Your task to perform on an android device: visit the assistant section in the google photos Image 0: 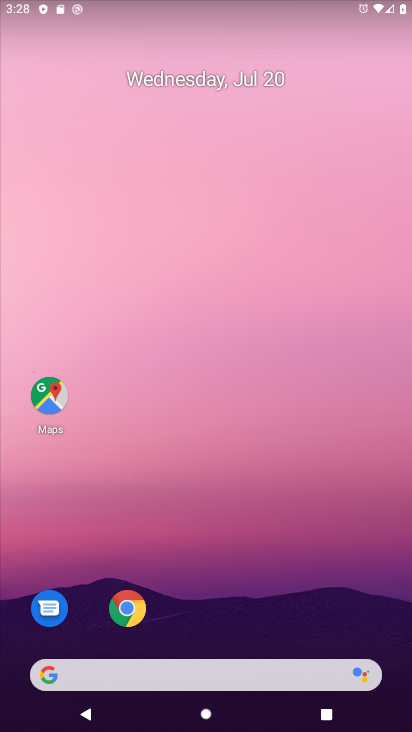
Step 0: click (259, 27)
Your task to perform on an android device: visit the assistant section in the google photos Image 1: 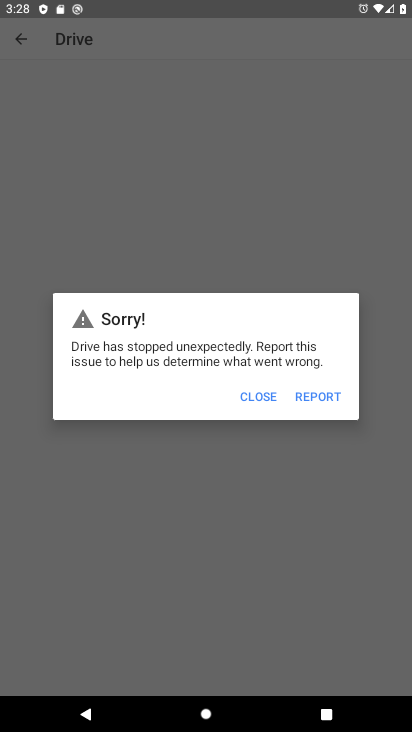
Step 1: press home button
Your task to perform on an android device: visit the assistant section in the google photos Image 2: 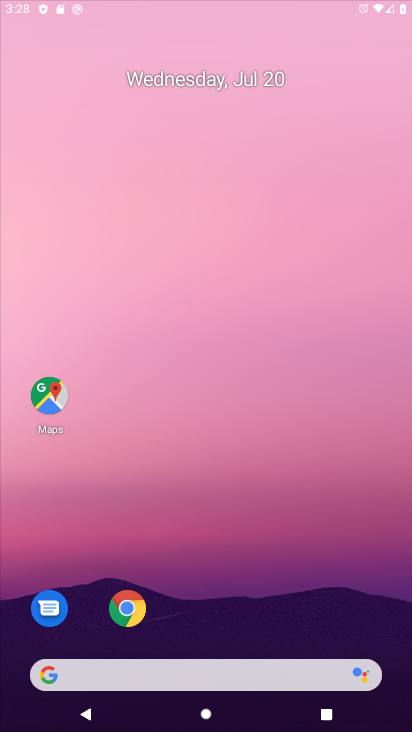
Step 2: drag from (249, 534) to (387, 39)
Your task to perform on an android device: visit the assistant section in the google photos Image 3: 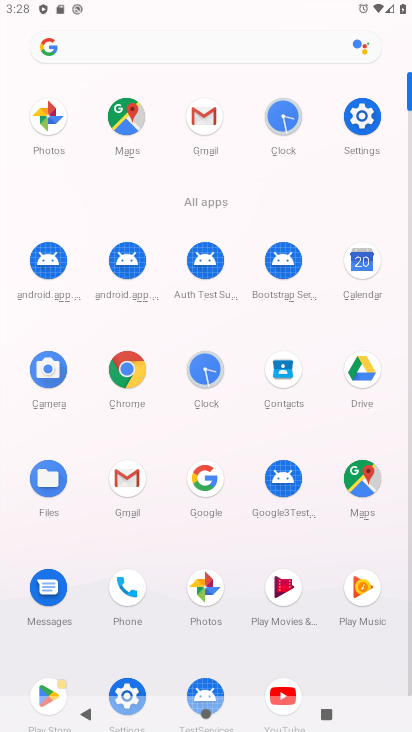
Step 3: click (198, 592)
Your task to perform on an android device: visit the assistant section in the google photos Image 4: 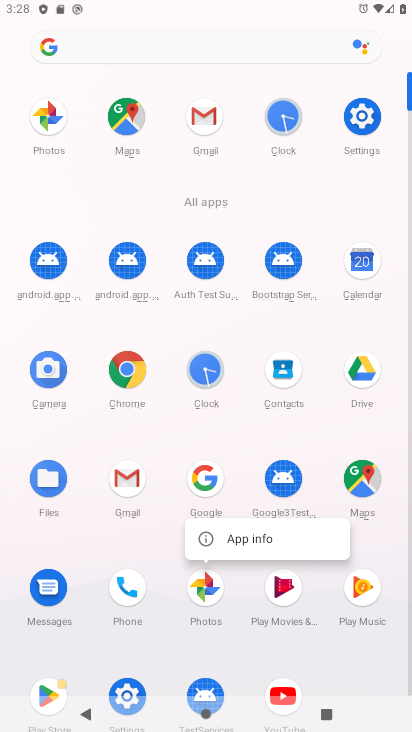
Step 4: click (236, 541)
Your task to perform on an android device: visit the assistant section in the google photos Image 5: 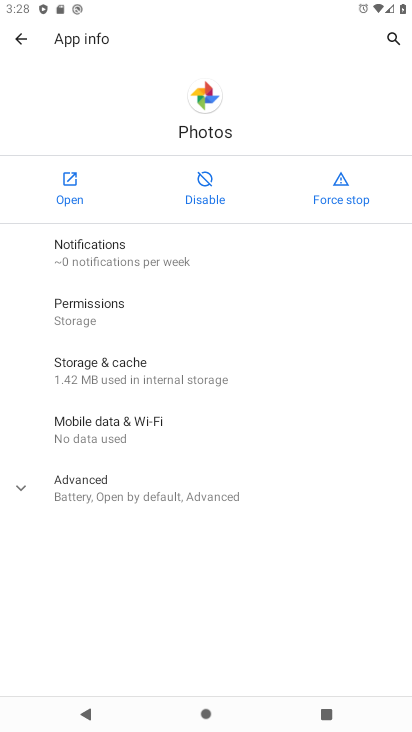
Step 5: click (64, 179)
Your task to perform on an android device: visit the assistant section in the google photos Image 6: 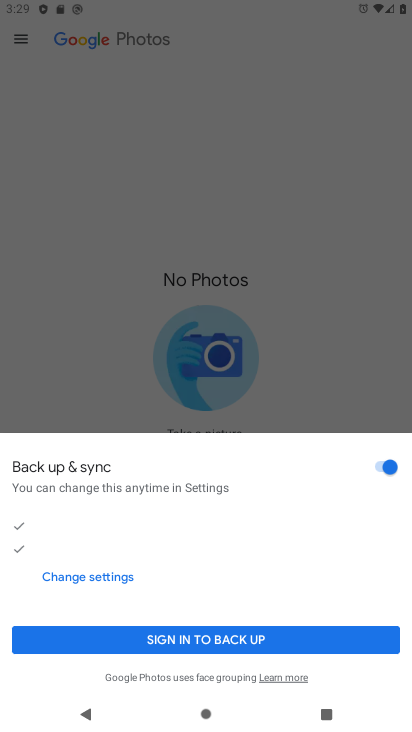
Step 6: click (139, 639)
Your task to perform on an android device: visit the assistant section in the google photos Image 7: 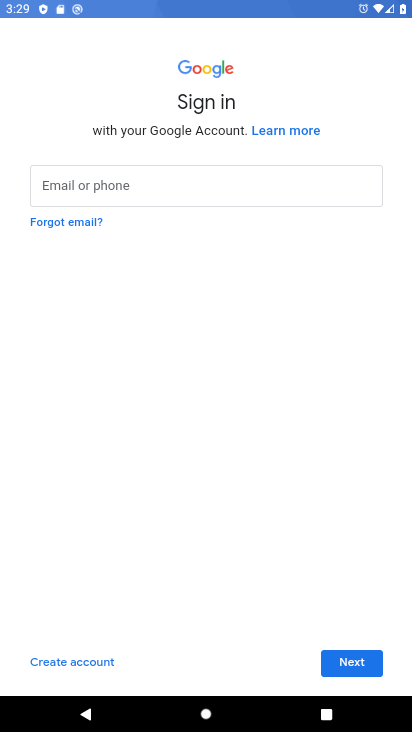
Step 7: drag from (239, 577) to (285, 330)
Your task to perform on an android device: visit the assistant section in the google photos Image 8: 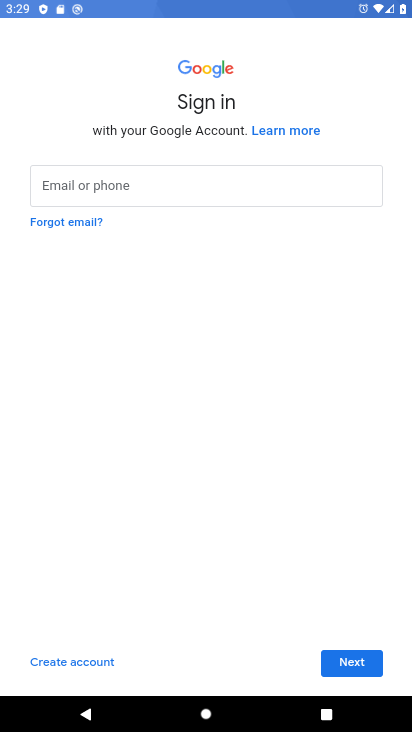
Step 8: press back button
Your task to perform on an android device: visit the assistant section in the google photos Image 9: 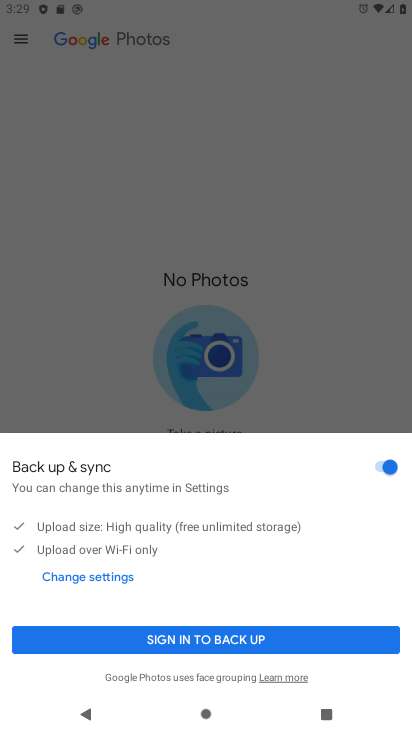
Step 9: click (389, 463)
Your task to perform on an android device: visit the assistant section in the google photos Image 10: 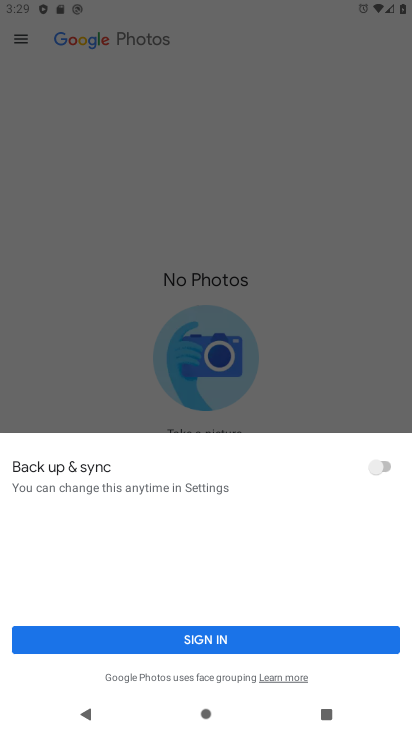
Step 10: click (286, 344)
Your task to perform on an android device: visit the assistant section in the google photos Image 11: 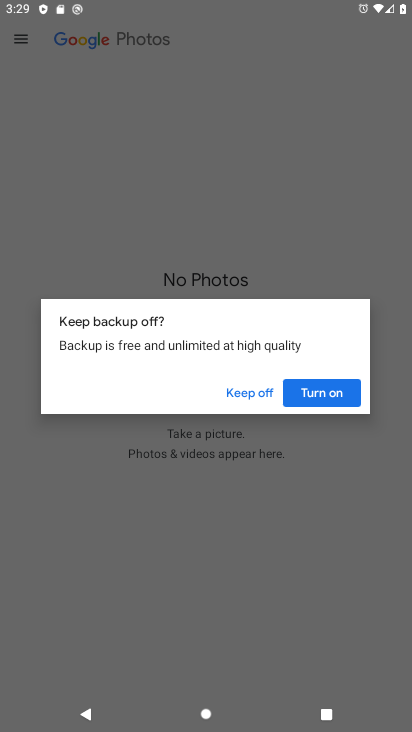
Step 11: click (232, 643)
Your task to perform on an android device: visit the assistant section in the google photos Image 12: 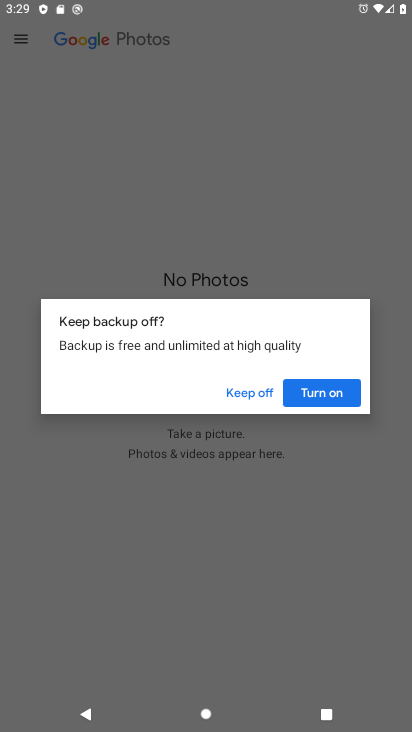
Step 12: click (236, 396)
Your task to perform on an android device: visit the assistant section in the google photos Image 13: 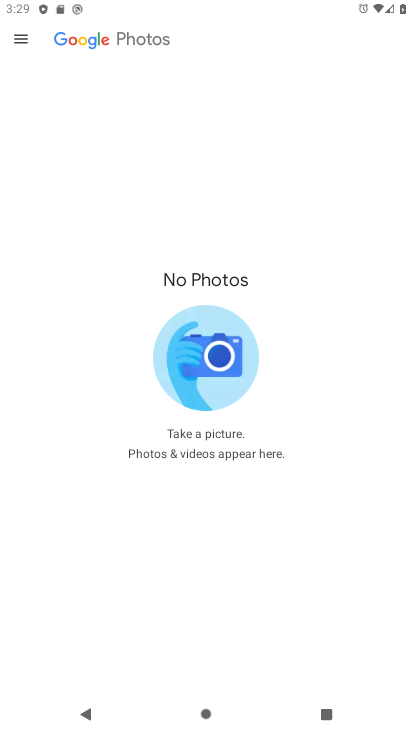
Step 13: click (16, 46)
Your task to perform on an android device: visit the assistant section in the google photos Image 14: 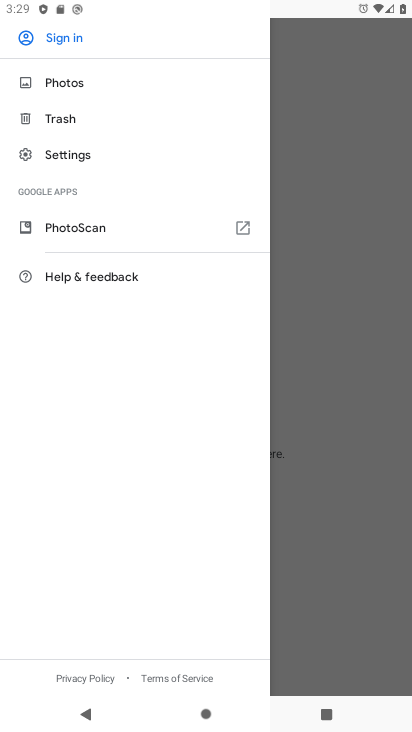
Step 14: click (96, 81)
Your task to perform on an android device: visit the assistant section in the google photos Image 15: 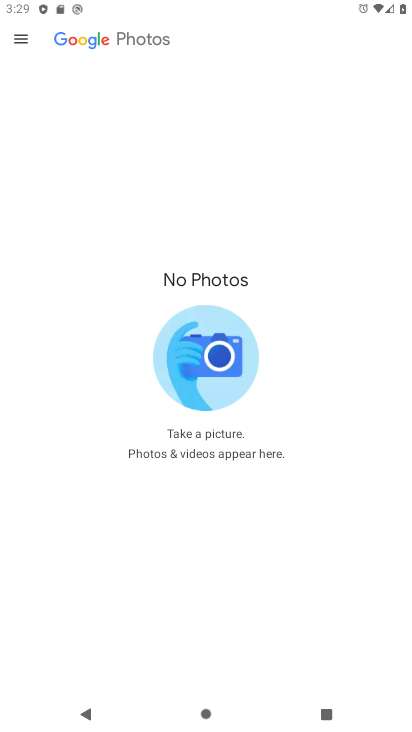
Step 15: task complete